Your task to perform on an android device: Show me productivity apps on the Play Store Image 0: 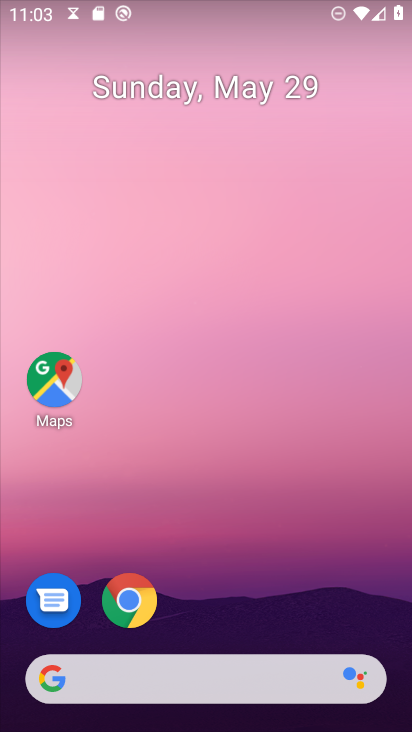
Step 0: drag from (198, 720) to (194, 249)
Your task to perform on an android device: Show me productivity apps on the Play Store Image 1: 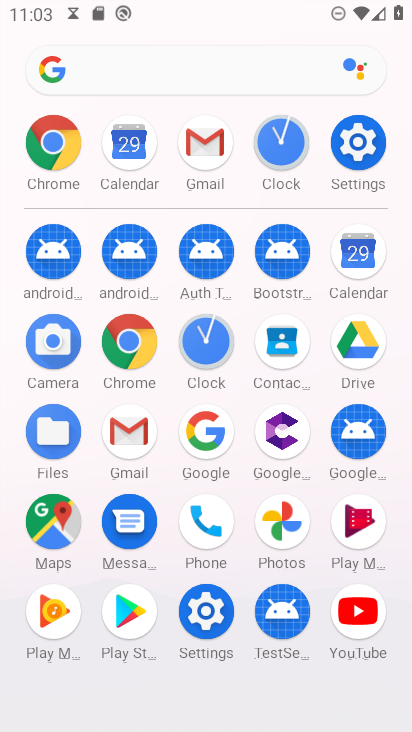
Step 1: click (120, 617)
Your task to perform on an android device: Show me productivity apps on the Play Store Image 2: 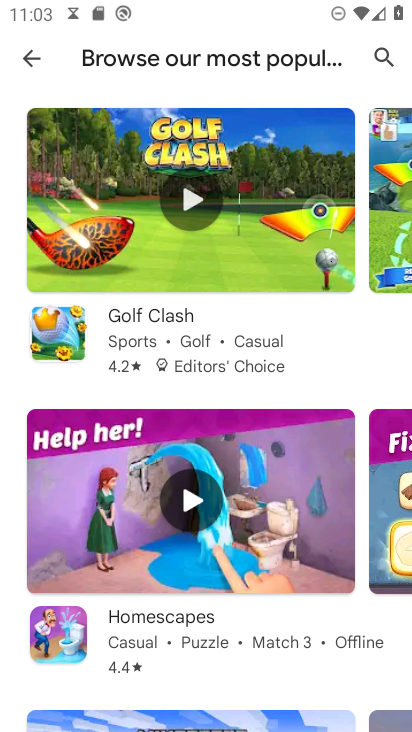
Step 2: click (26, 53)
Your task to perform on an android device: Show me productivity apps on the Play Store Image 3: 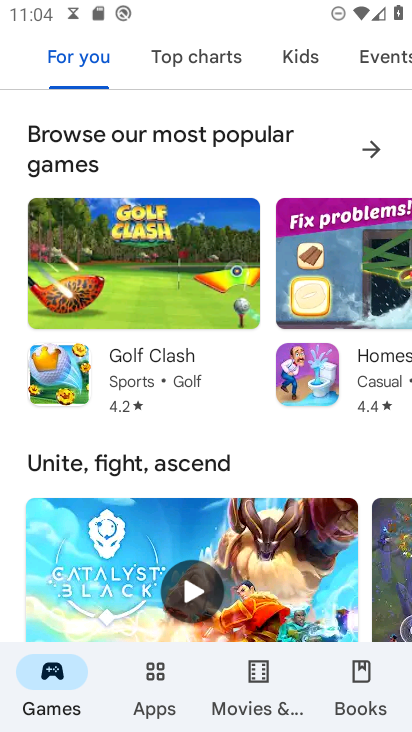
Step 3: click (148, 696)
Your task to perform on an android device: Show me productivity apps on the Play Store Image 4: 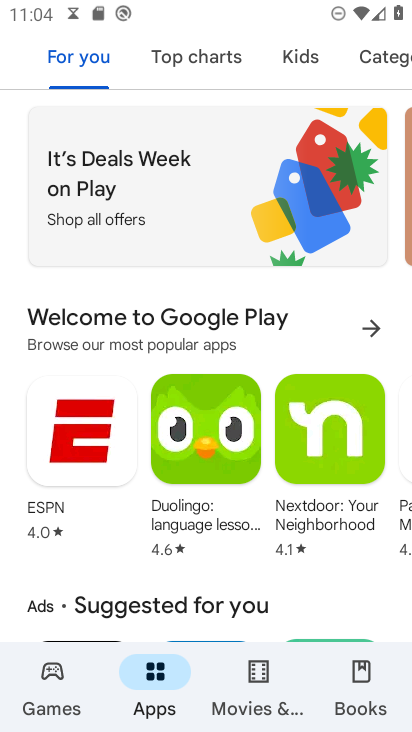
Step 4: click (371, 58)
Your task to perform on an android device: Show me productivity apps on the Play Store Image 5: 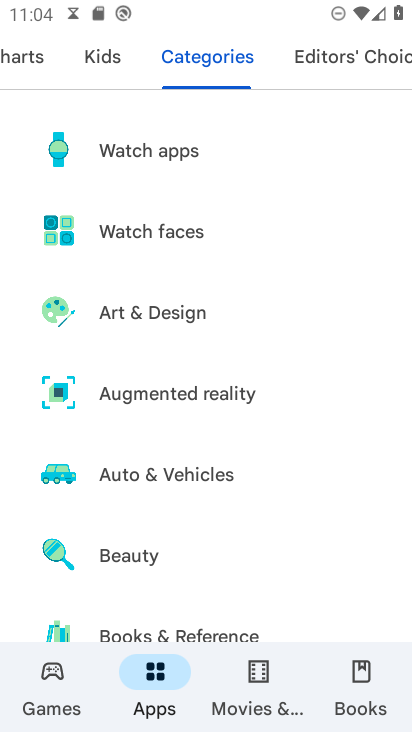
Step 5: drag from (118, 592) to (129, 361)
Your task to perform on an android device: Show me productivity apps on the Play Store Image 6: 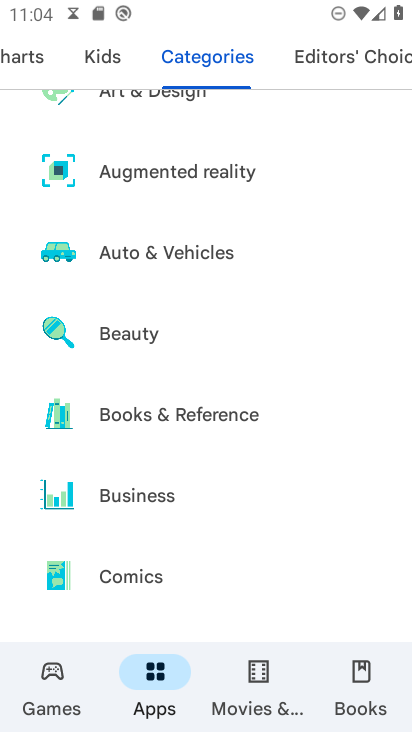
Step 6: drag from (147, 603) to (136, 196)
Your task to perform on an android device: Show me productivity apps on the Play Store Image 7: 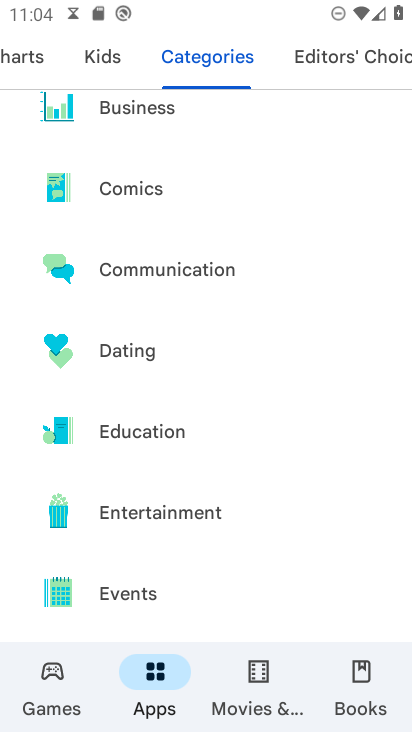
Step 7: drag from (197, 166) to (198, 529)
Your task to perform on an android device: Show me productivity apps on the Play Store Image 8: 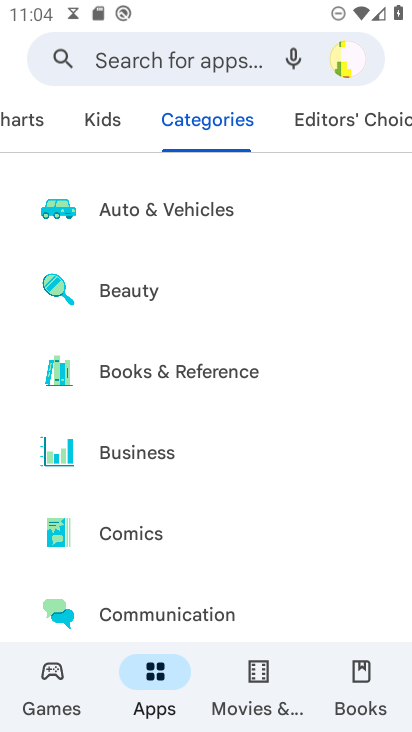
Step 8: drag from (180, 576) to (179, 119)
Your task to perform on an android device: Show me productivity apps on the Play Store Image 9: 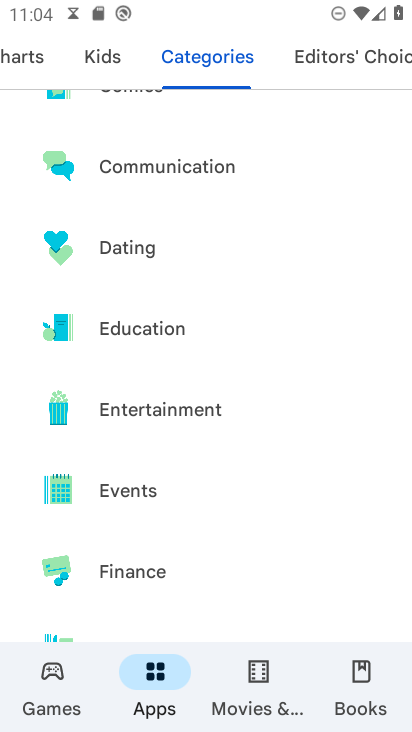
Step 9: drag from (161, 598) to (163, 189)
Your task to perform on an android device: Show me productivity apps on the Play Store Image 10: 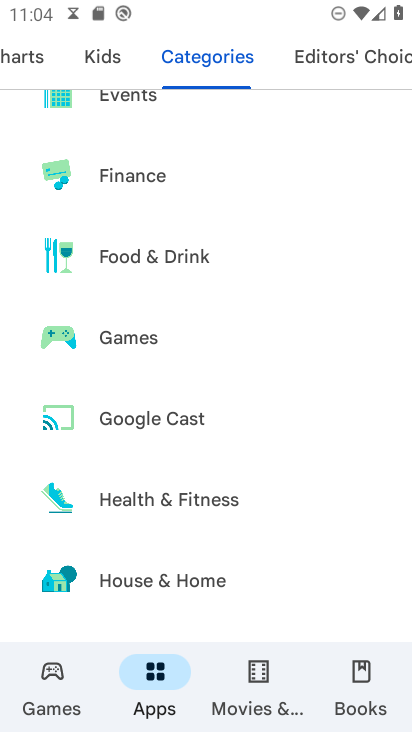
Step 10: drag from (158, 608) to (163, 97)
Your task to perform on an android device: Show me productivity apps on the Play Store Image 11: 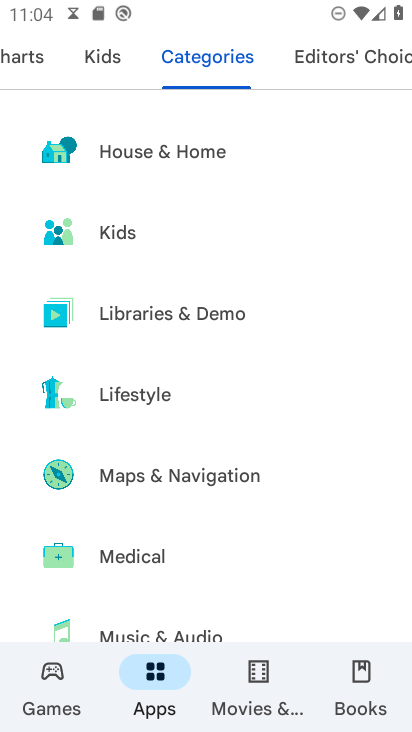
Step 11: drag from (178, 605) to (181, 156)
Your task to perform on an android device: Show me productivity apps on the Play Store Image 12: 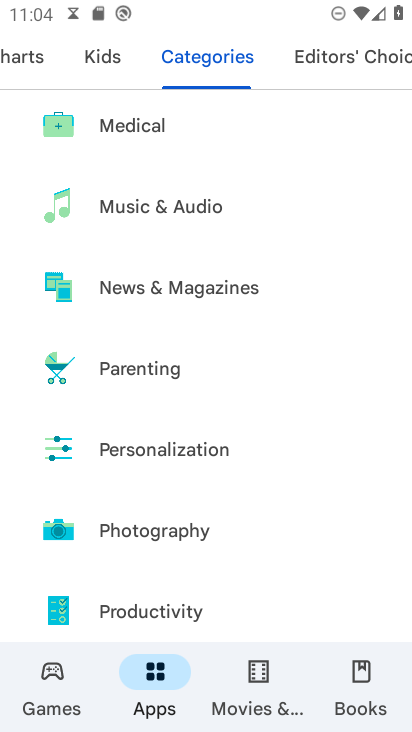
Step 12: click (158, 601)
Your task to perform on an android device: Show me productivity apps on the Play Store Image 13: 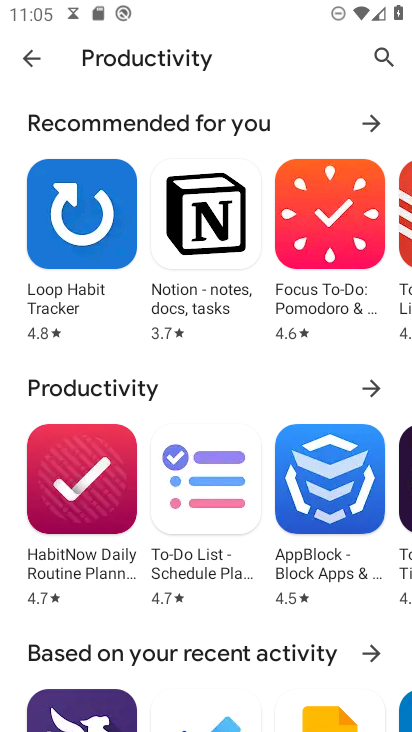
Step 13: task complete